Your task to perform on an android device: Go to eBay Image 0: 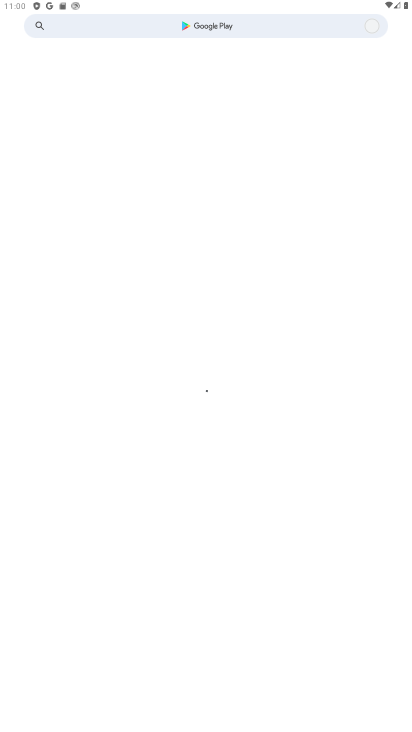
Step 0: press home button
Your task to perform on an android device: Go to eBay Image 1: 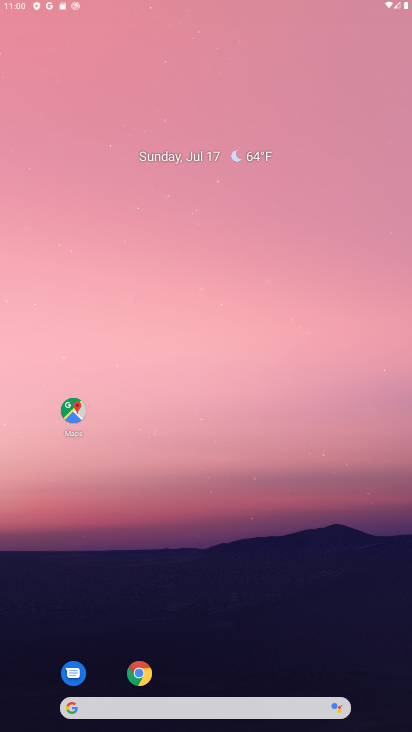
Step 1: drag from (226, 681) to (237, 158)
Your task to perform on an android device: Go to eBay Image 2: 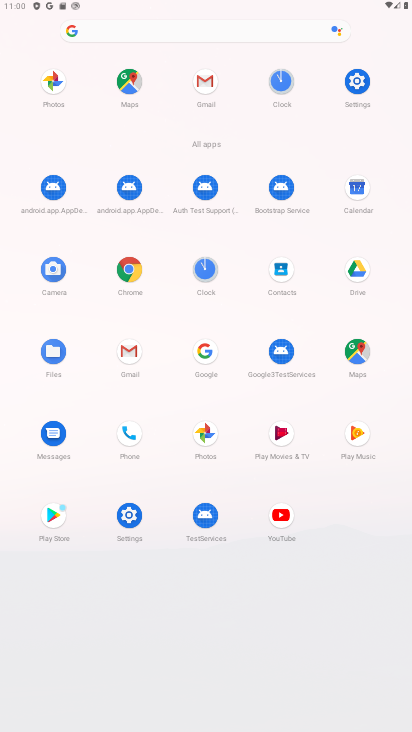
Step 2: click (212, 359)
Your task to perform on an android device: Go to eBay Image 3: 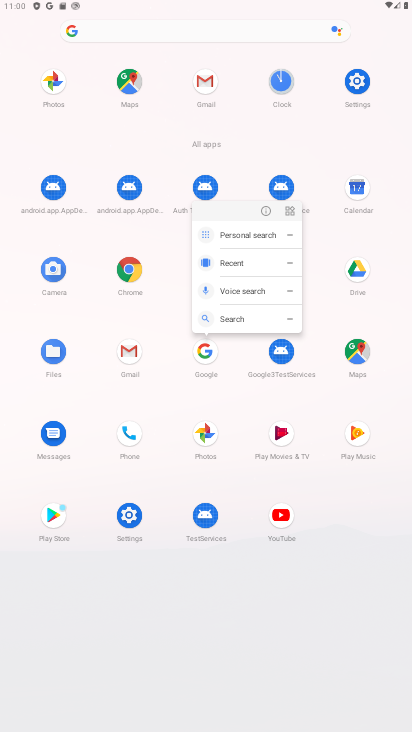
Step 3: click (208, 349)
Your task to perform on an android device: Go to eBay Image 4: 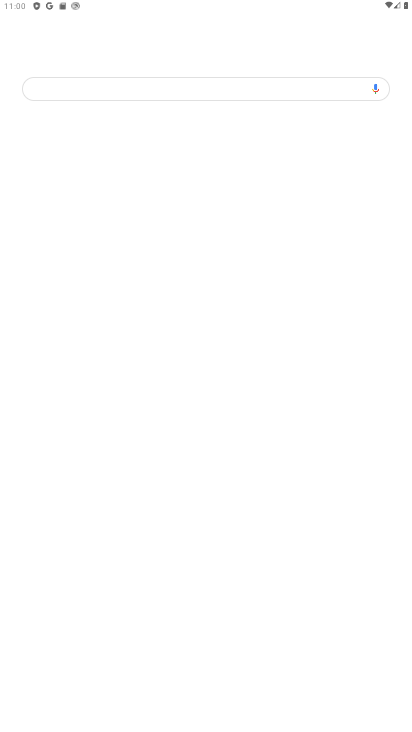
Step 4: click (183, 85)
Your task to perform on an android device: Go to eBay Image 5: 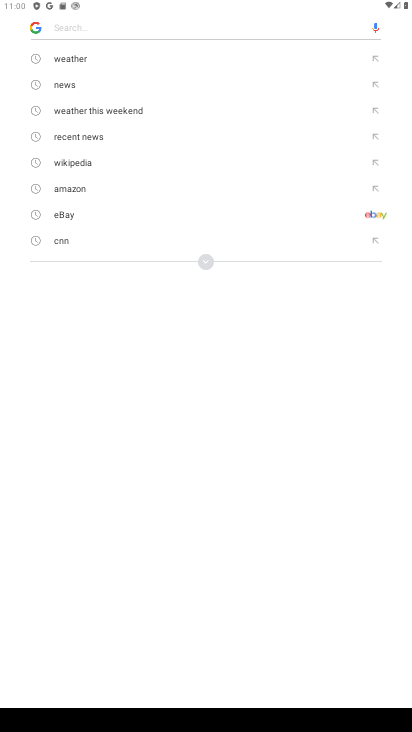
Step 5: type "ebay"
Your task to perform on an android device: Go to eBay Image 6: 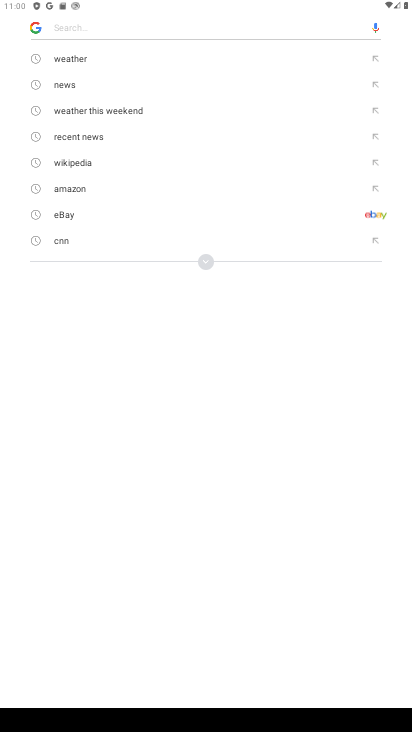
Step 6: click (201, 217)
Your task to perform on an android device: Go to eBay Image 7: 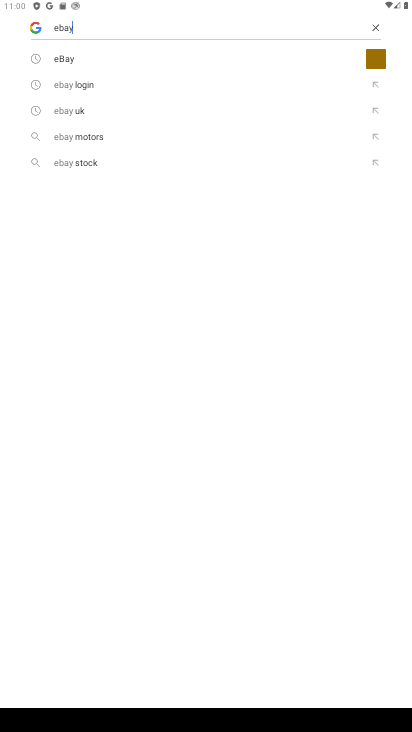
Step 7: click (84, 212)
Your task to perform on an android device: Go to eBay Image 8: 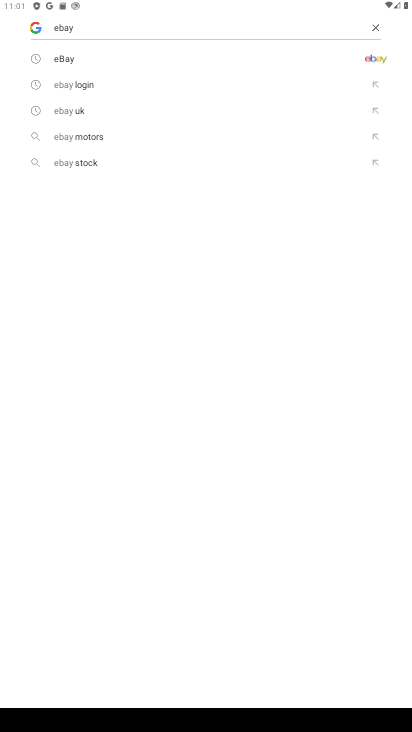
Step 8: click (102, 41)
Your task to perform on an android device: Go to eBay Image 9: 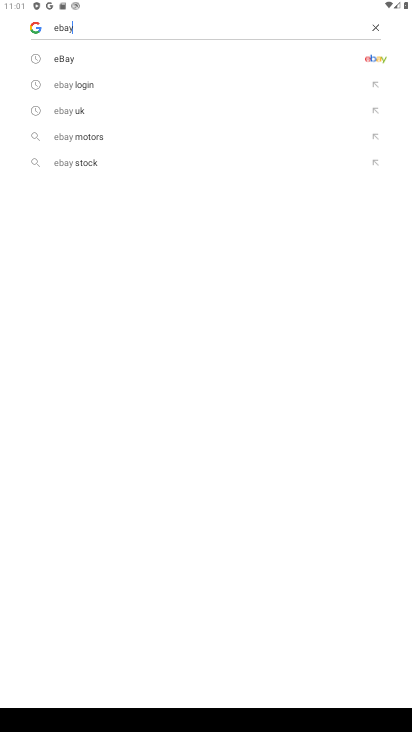
Step 9: click (104, 48)
Your task to perform on an android device: Go to eBay Image 10: 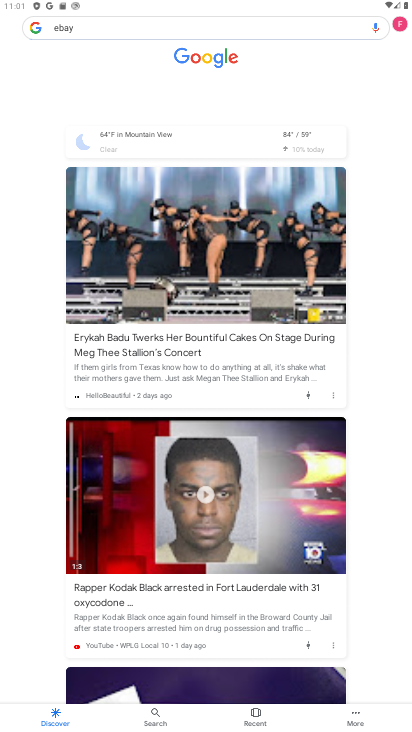
Step 10: task complete